Your task to perform on an android device: change the clock display to analog Image 0: 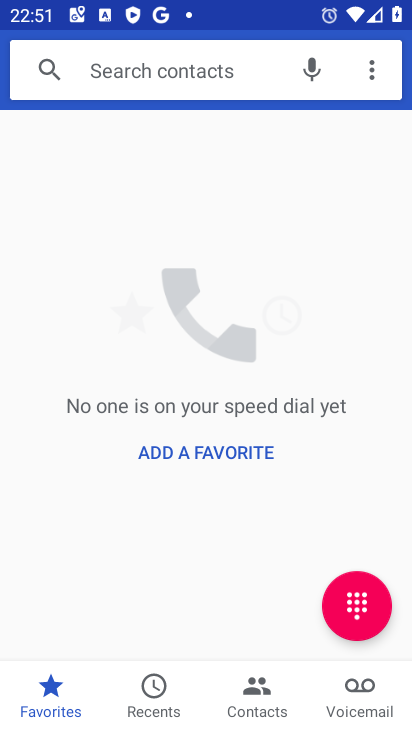
Step 0: press home button
Your task to perform on an android device: change the clock display to analog Image 1: 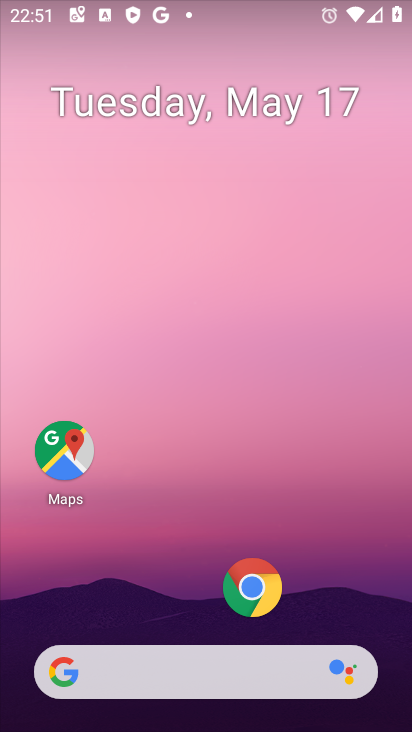
Step 1: drag from (204, 601) to (233, 171)
Your task to perform on an android device: change the clock display to analog Image 2: 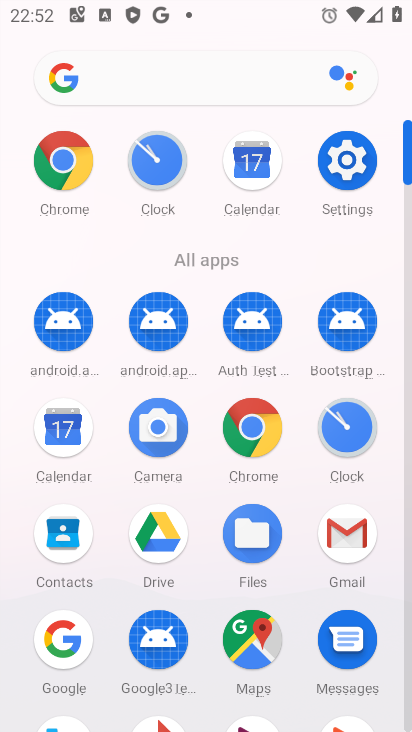
Step 2: click (353, 441)
Your task to perform on an android device: change the clock display to analog Image 3: 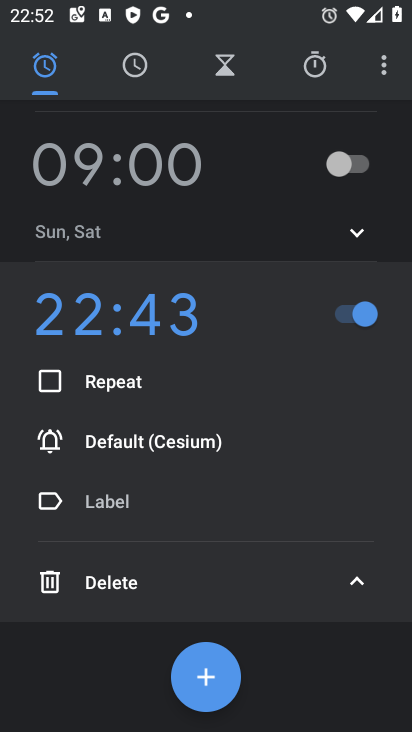
Step 3: click (382, 70)
Your task to perform on an android device: change the clock display to analog Image 4: 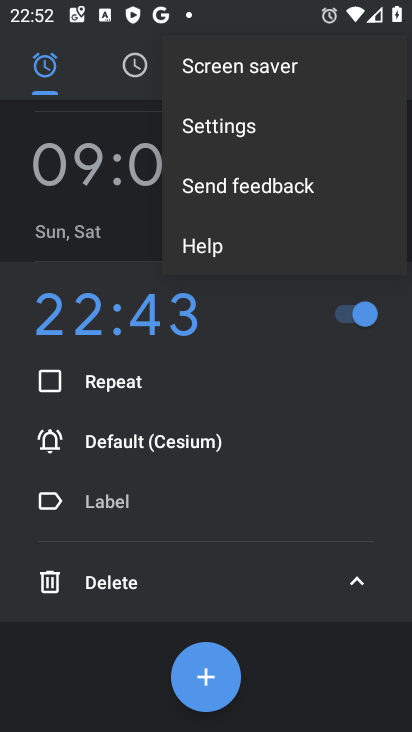
Step 4: click (263, 134)
Your task to perform on an android device: change the clock display to analog Image 5: 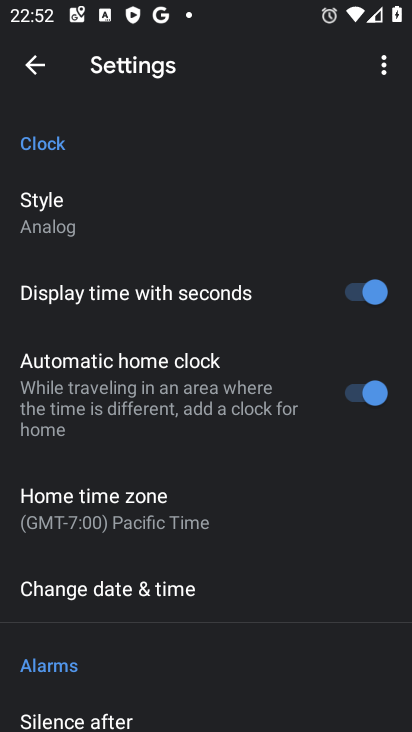
Step 5: task complete